Your task to perform on an android device: When is my next appointment? Image 0: 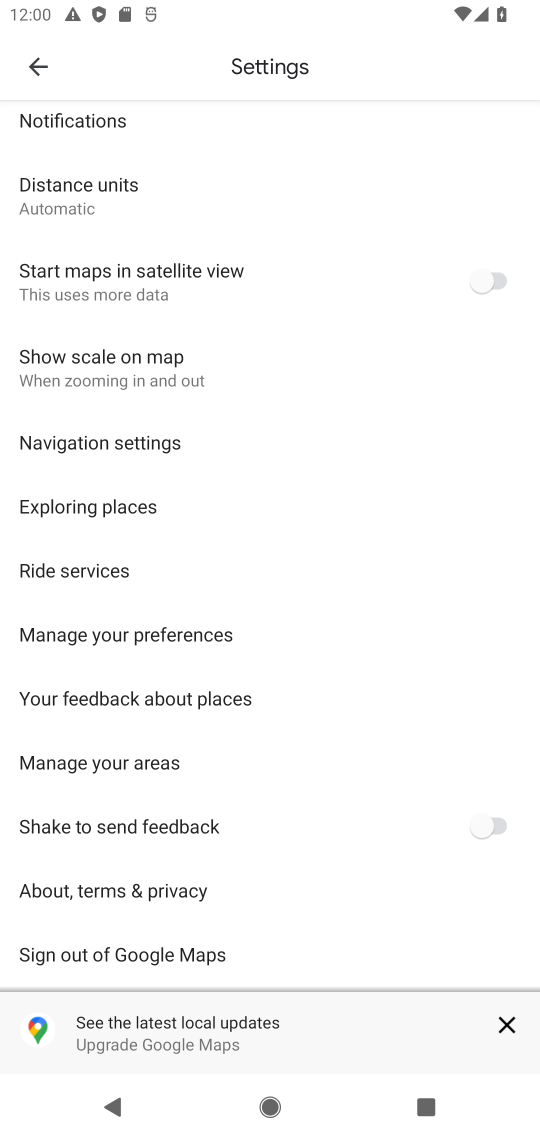
Step 0: drag from (267, 371) to (332, 791)
Your task to perform on an android device: When is my next appointment? Image 1: 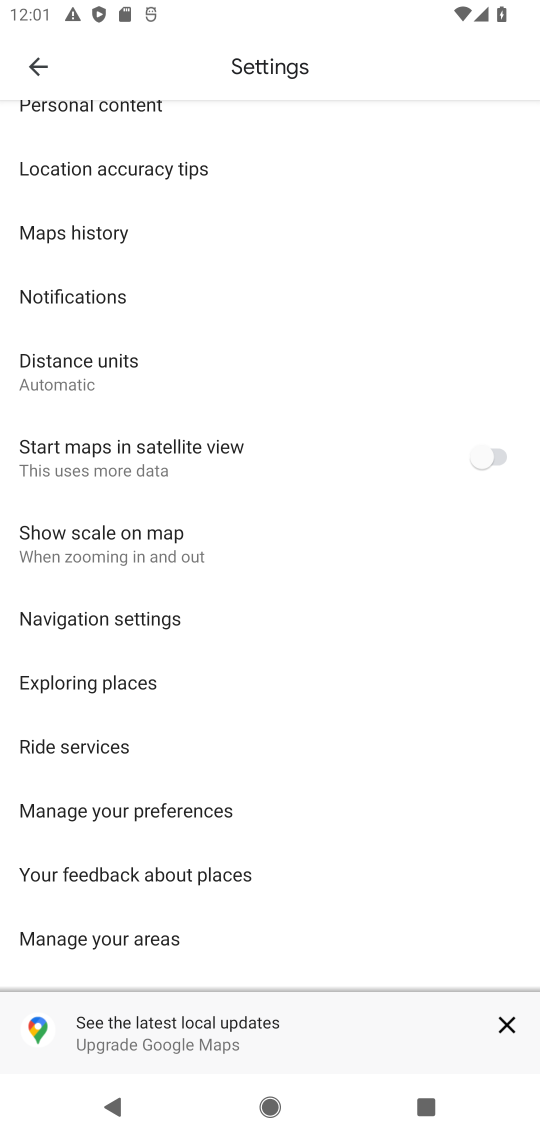
Step 1: press home button
Your task to perform on an android device: When is my next appointment? Image 2: 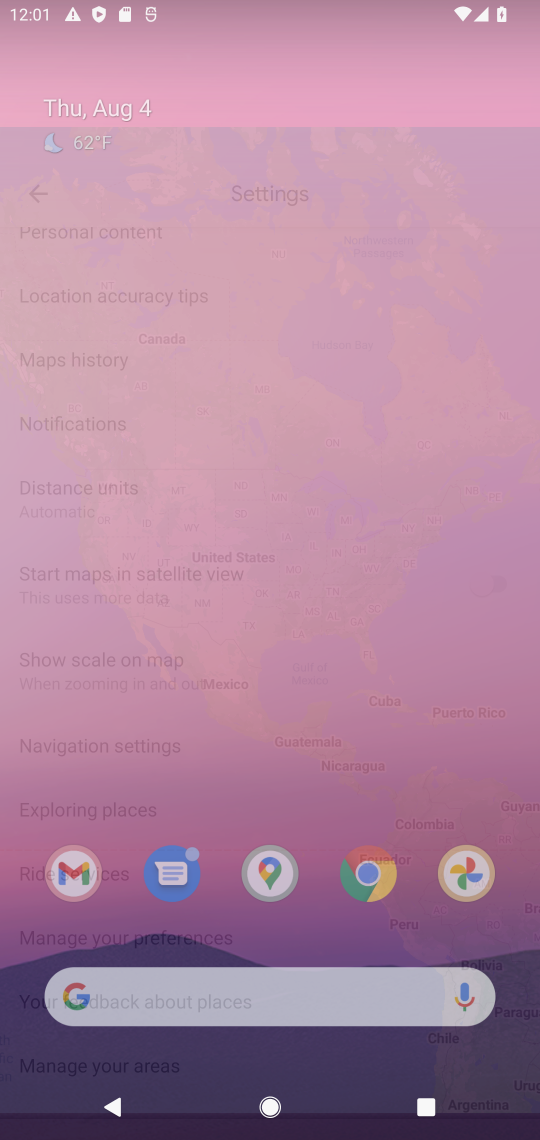
Step 2: drag from (291, 715) to (277, 189)
Your task to perform on an android device: When is my next appointment? Image 3: 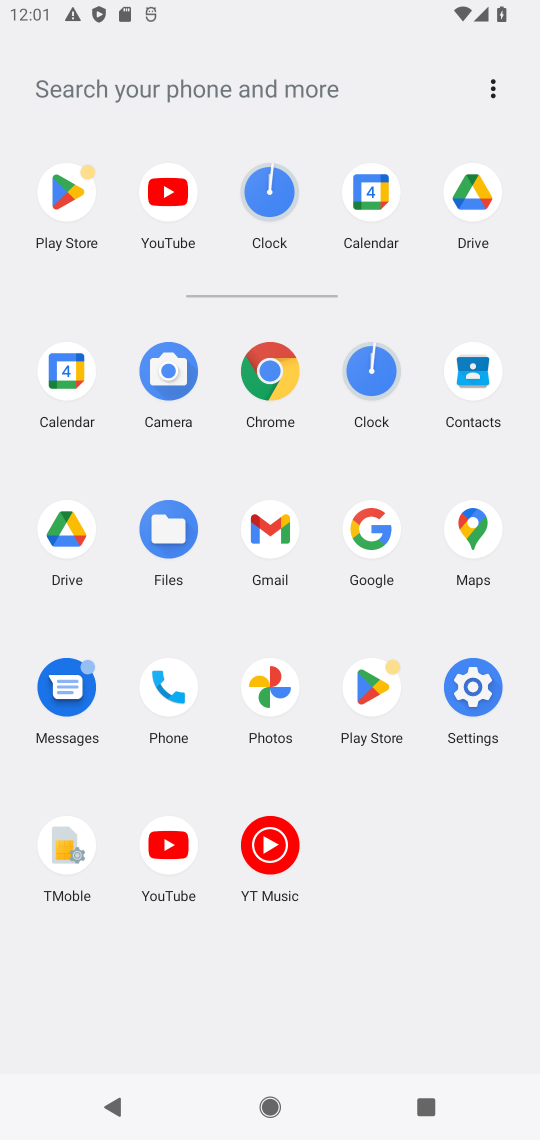
Step 3: click (61, 394)
Your task to perform on an android device: When is my next appointment? Image 4: 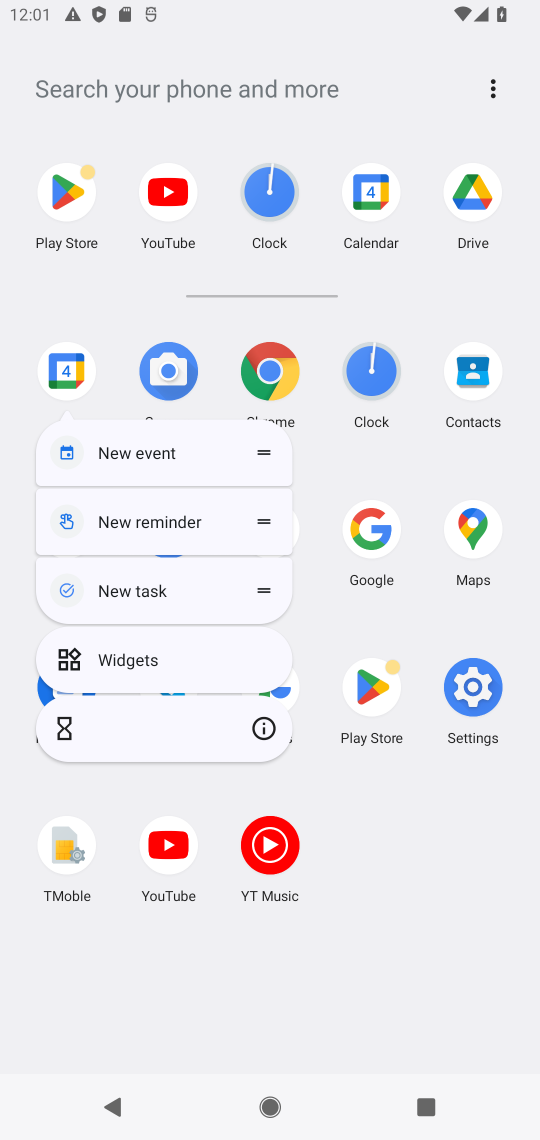
Step 4: click (270, 719)
Your task to perform on an android device: When is my next appointment? Image 5: 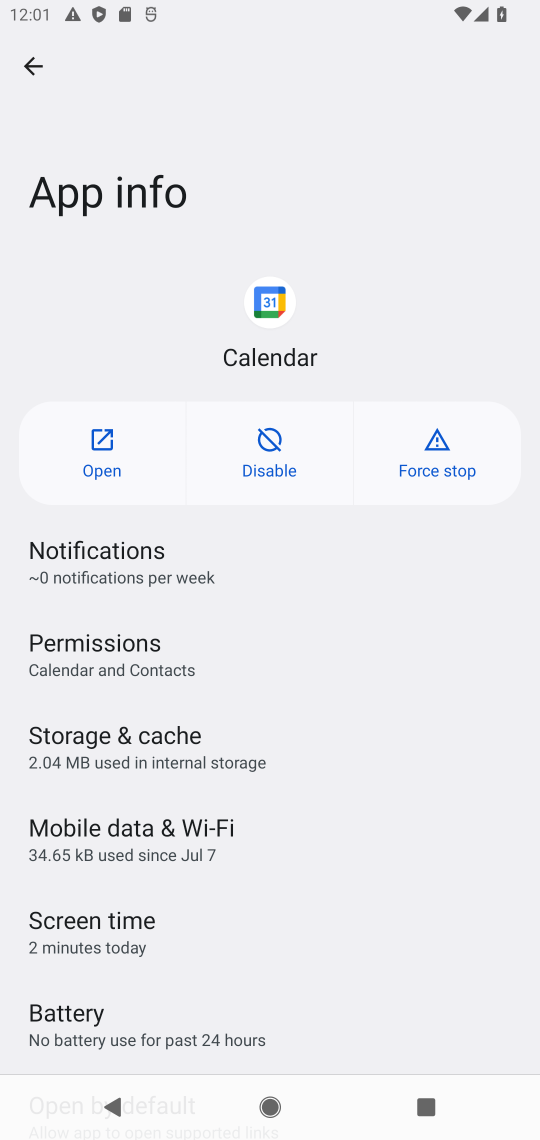
Step 5: click (105, 437)
Your task to perform on an android device: When is my next appointment? Image 6: 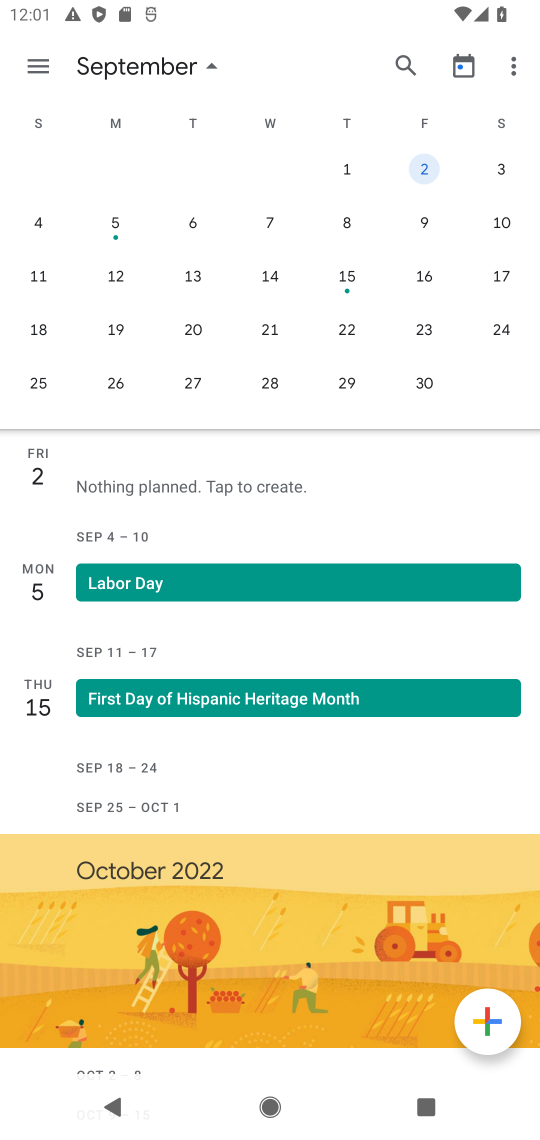
Step 6: click (439, 166)
Your task to perform on an android device: When is my next appointment? Image 7: 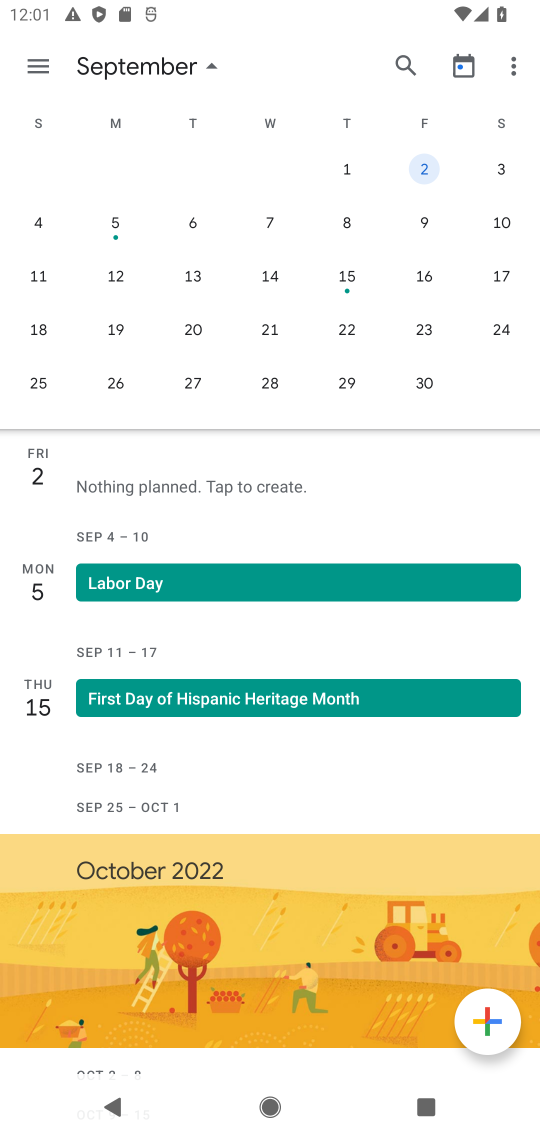
Step 7: click (431, 172)
Your task to perform on an android device: When is my next appointment? Image 8: 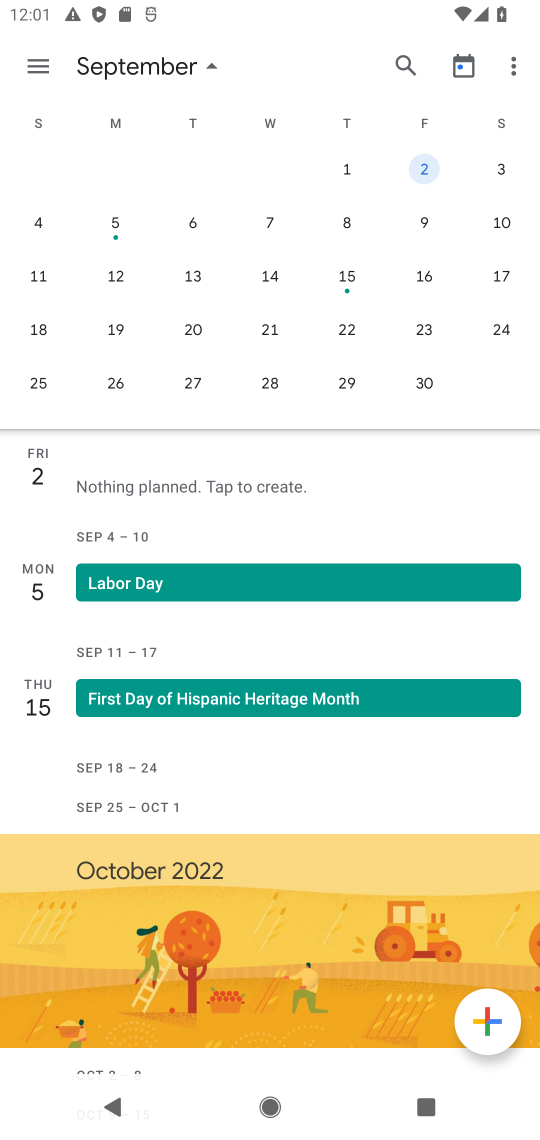
Step 8: task complete